Your task to perform on an android device: Open Google Maps and go to "Timeline" Image 0: 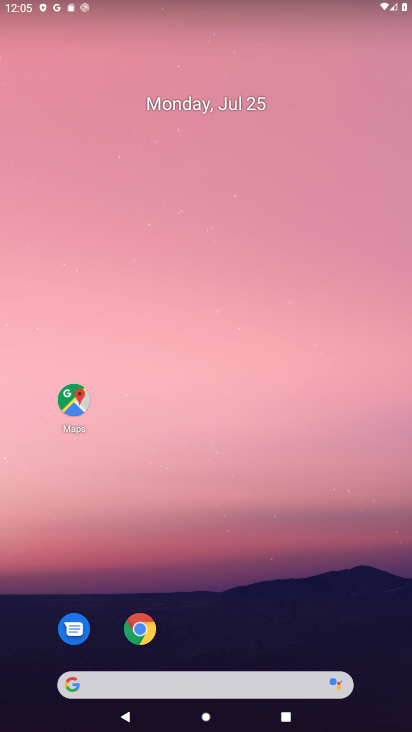
Step 0: drag from (321, 623) to (244, 153)
Your task to perform on an android device: Open Google Maps and go to "Timeline" Image 1: 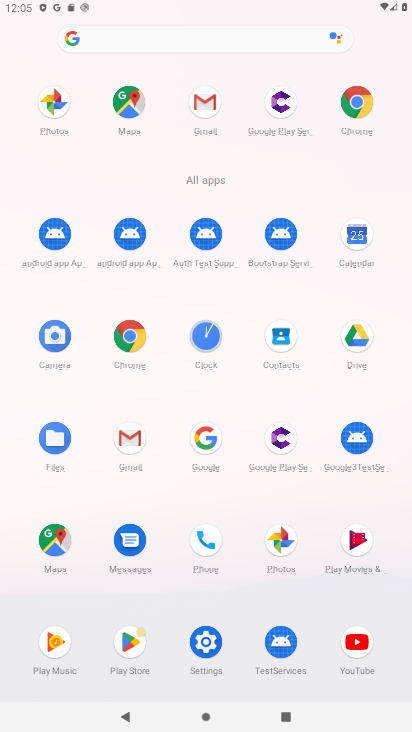
Step 1: click (130, 104)
Your task to perform on an android device: Open Google Maps and go to "Timeline" Image 2: 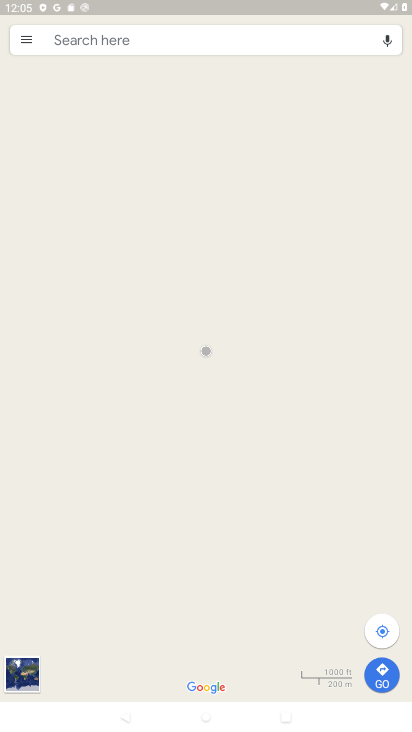
Step 2: click (25, 35)
Your task to perform on an android device: Open Google Maps and go to "Timeline" Image 3: 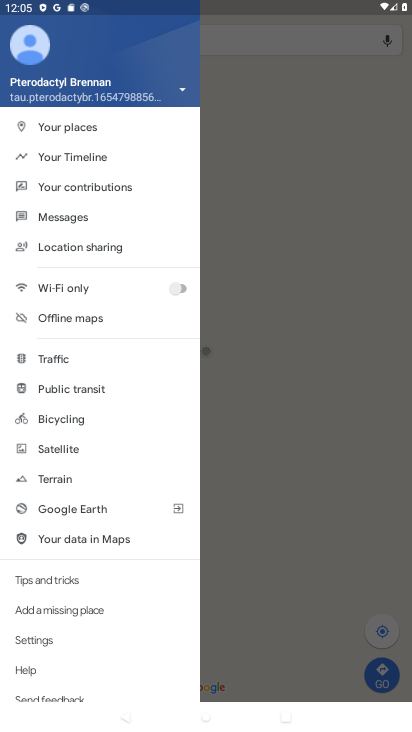
Step 3: click (80, 151)
Your task to perform on an android device: Open Google Maps and go to "Timeline" Image 4: 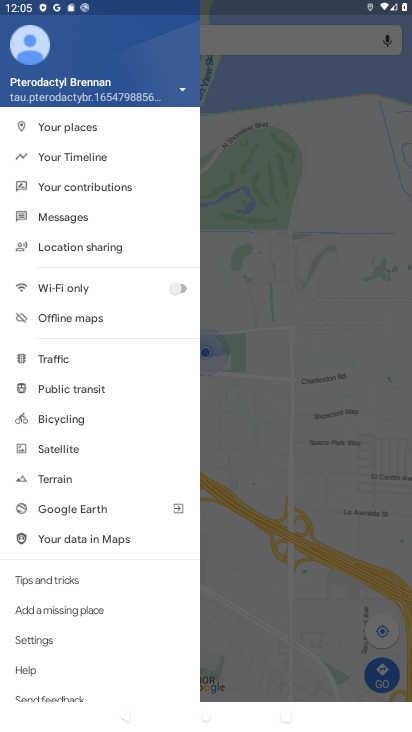
Step 4: click (95, 158)
Your task to perform on an android device: Open Google Maps and go to "Timeline" Image 5: 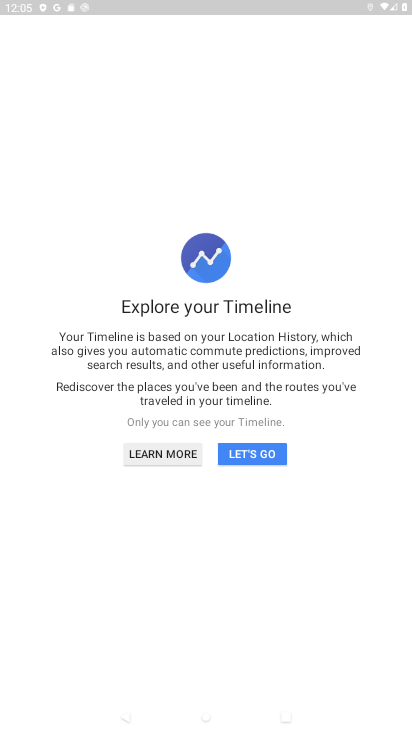
Step 5: click (269, 461)
Your task to perform on an android device: Open Google Maps and go to "Timeline" Image 6: 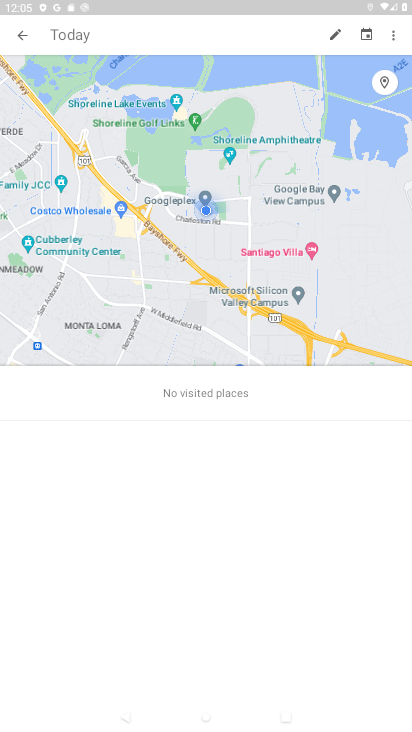
Step 6: task complete